Your task to perform on an android device: Do I have any events tomorrow? Image 0: 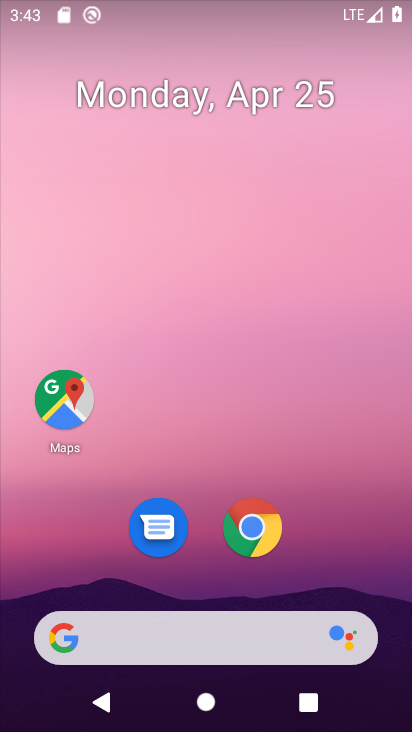
Step 0: drag from (398, 630) to (349, 49)
Your task to perform on an android device: Do I have any events tomorrow? Image 1: 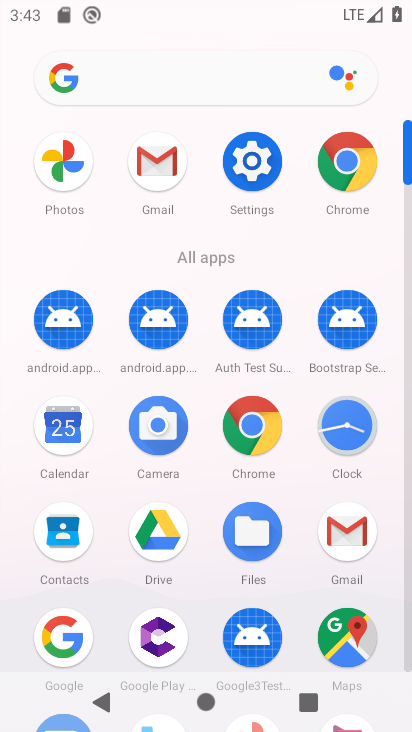
Step 1: click (406, 656)
Your task to perform on an android device: Do I have any events tomorrow? Image 2: 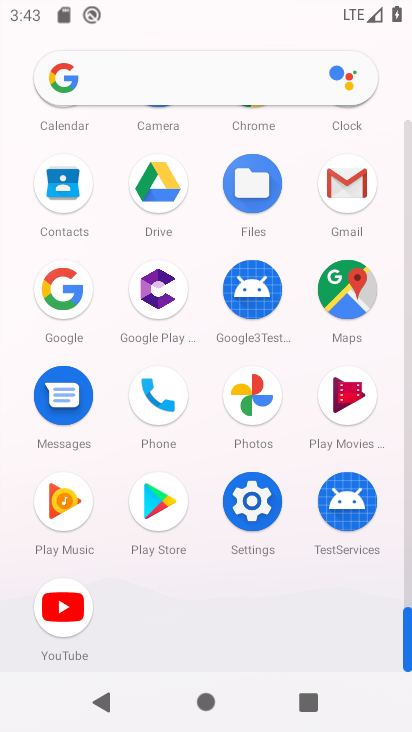
Step 2: click (404, 284)
Your task to perform on an android device: Do I have any events tomorrow? Image 3: 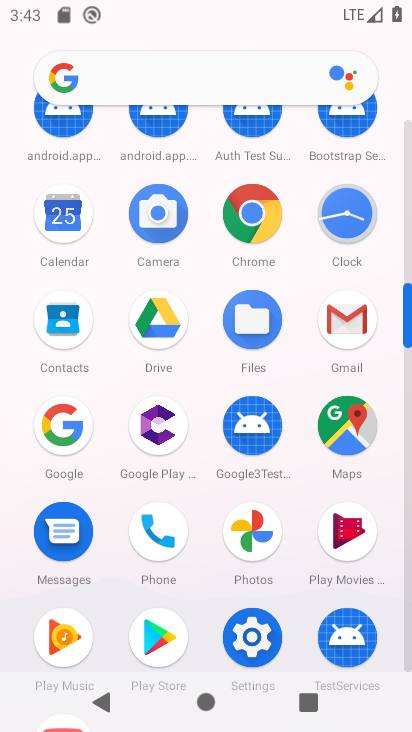
Step 3: click (55, 215)
Your task to perform on an android device: Do I have any events tomorrow? Image 4: 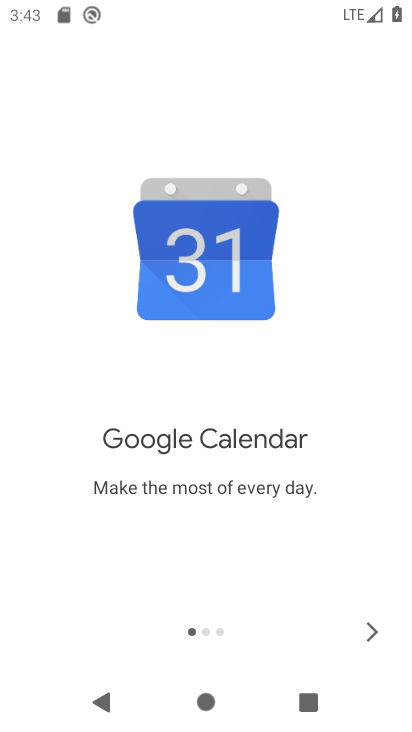
Step 4: click (368, 632)
Your task to perform on an android device: Do I have any events tomorrow? Image 5: 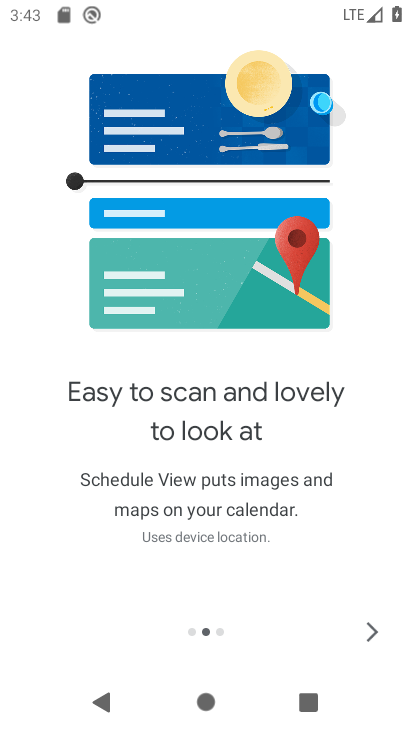
Step 5: click (369, 625)
Your task to perform on an android device: Do I have any events tomorrow? Image 6: 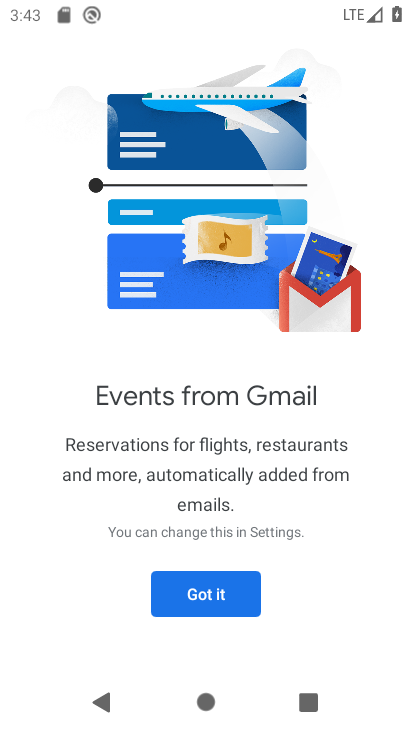
Step 6: click (195, 589)
Your task to perform on an android device: Do I have any events tomorrow? Image 7: 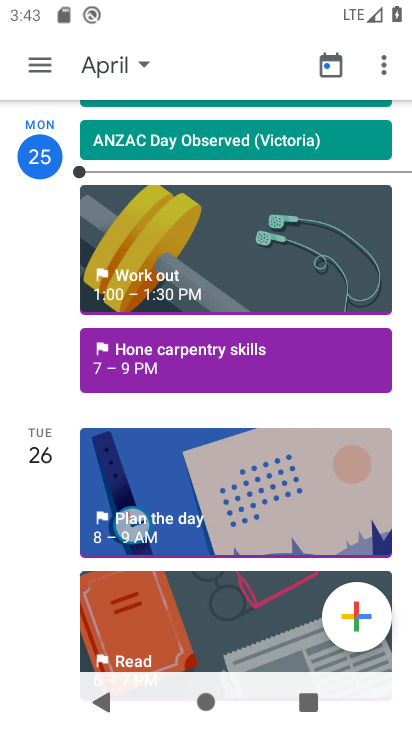
Step 7: click (41, 63)
Your task to perform on an android device: Do I have any events tomorrow? Image 8: 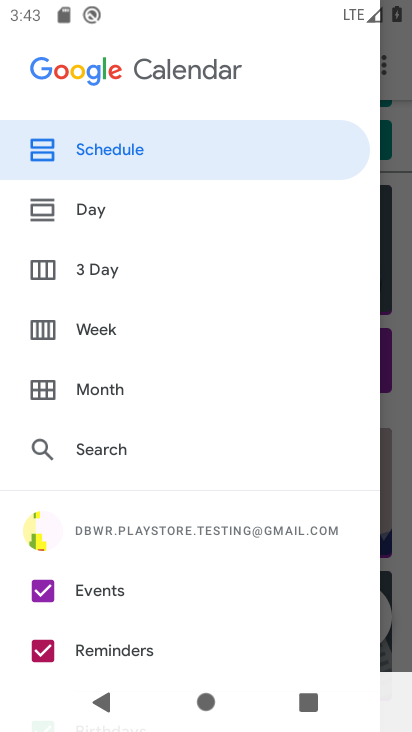
Step 8: click (84, 208)
Your task to perform on an android device: Do I have any events tomorrow? Image 9: 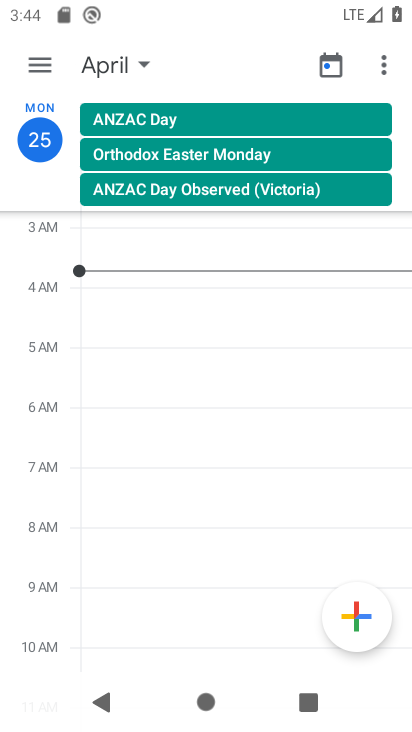
Step 9: click (145, 57)
Your task to perform on an android device: Do I have any events tomorrow? Image 10: 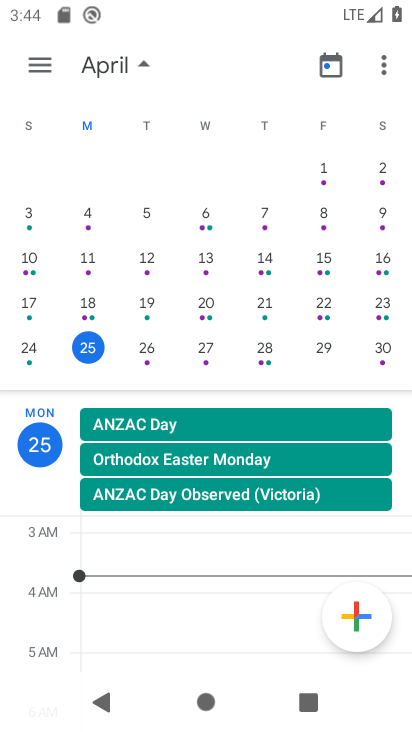
Step 10: click (143, 345)
Your task to perform on an android device: Do I have any events tomorrow? Image 11: 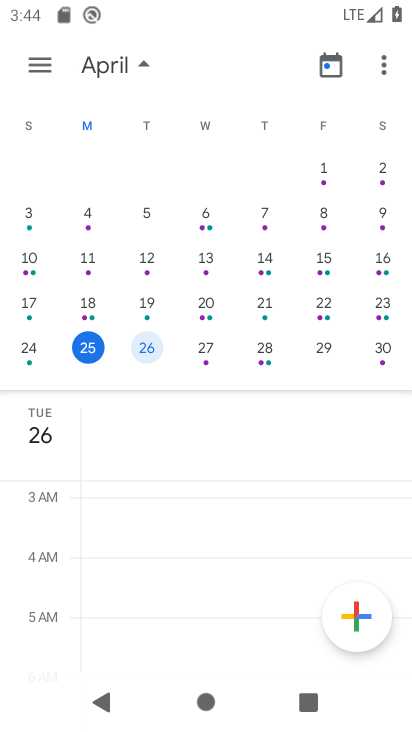
Step 11: task complete